Your task to perform on an android device: turn on sleep mode Image 0: 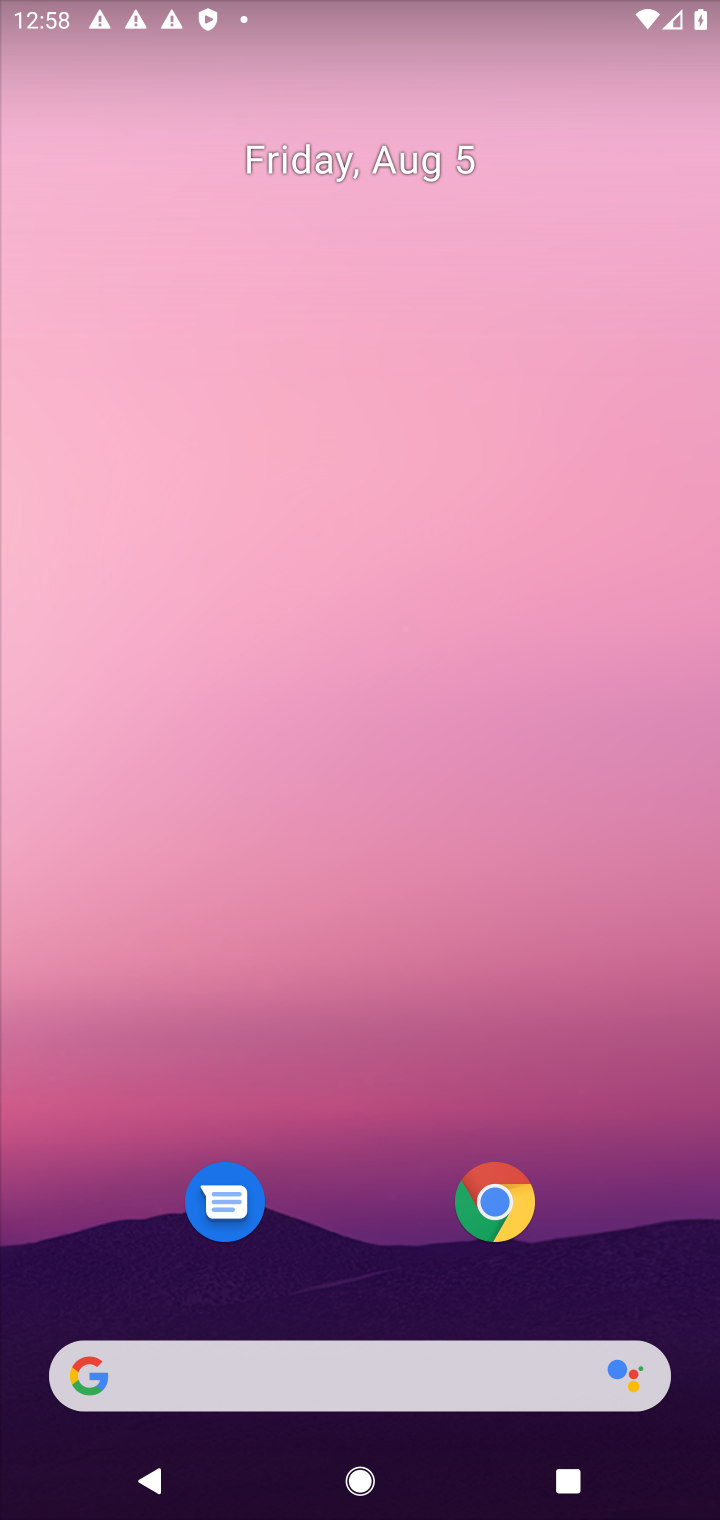
Step 0: drag from (347, 1217) to (444, 236)
Your task to perform on an android device: turn on sleep mode Image 1: 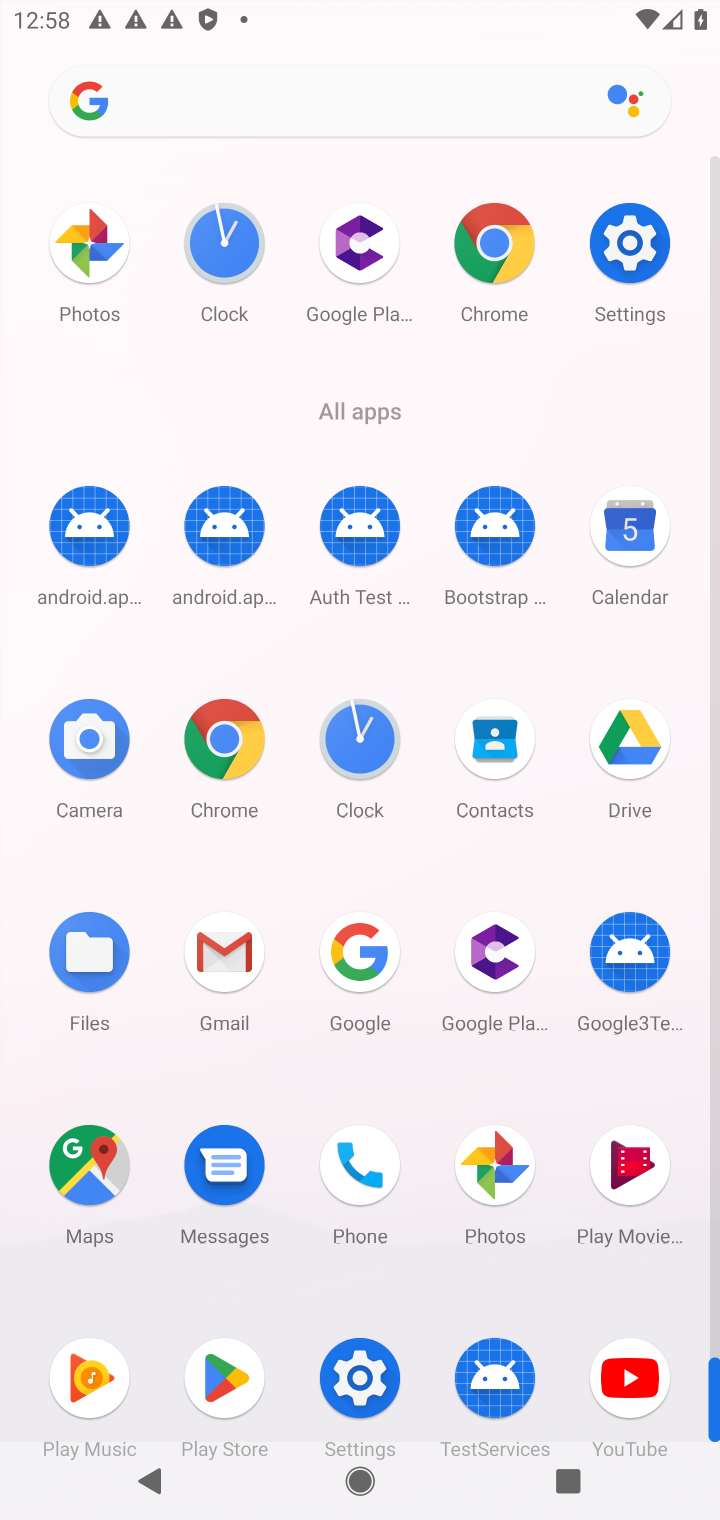
Step 1: click (369, 1384)
Your task to perform on an android device: turn on sleep mode Image 2: 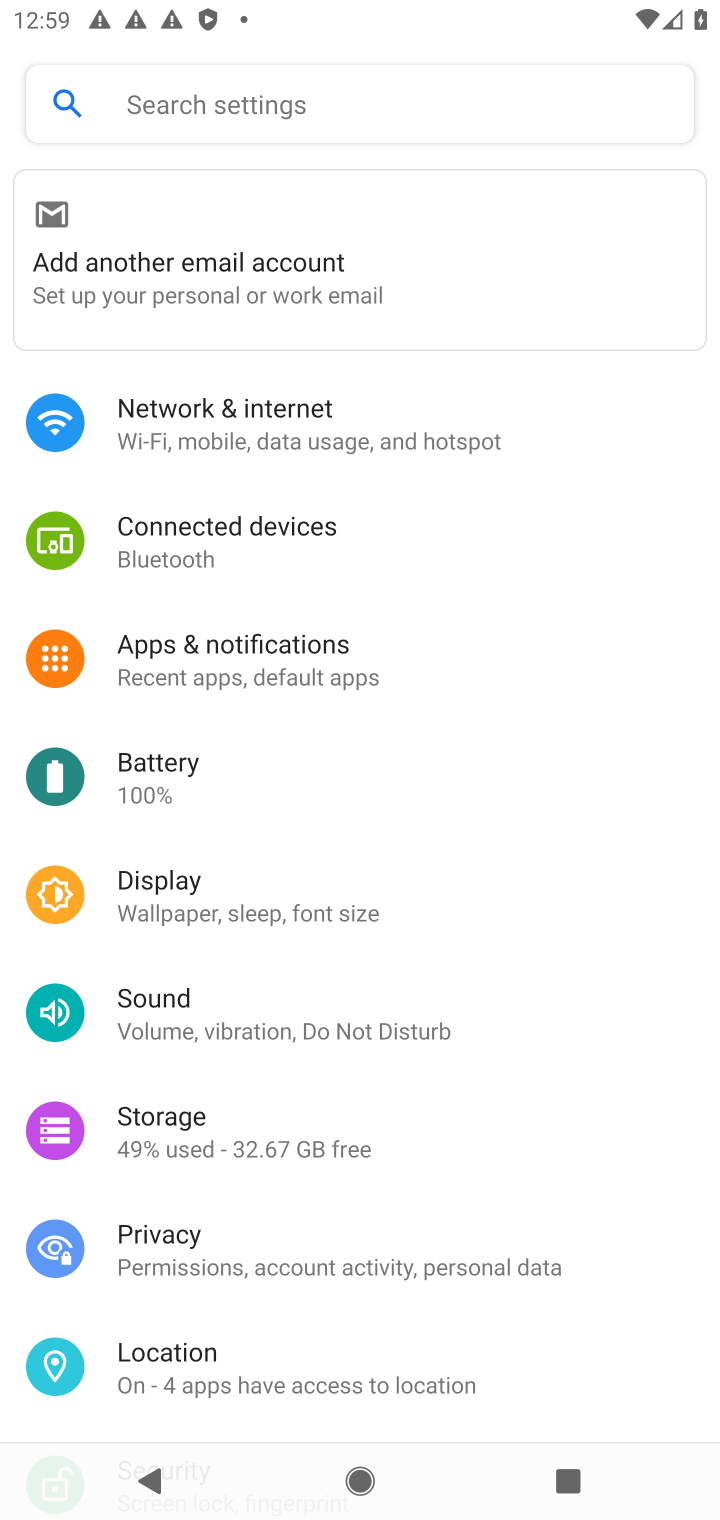
Step 2: click (249, 918)
Your task to perform on an android device: turn on sleep mode Image 3: 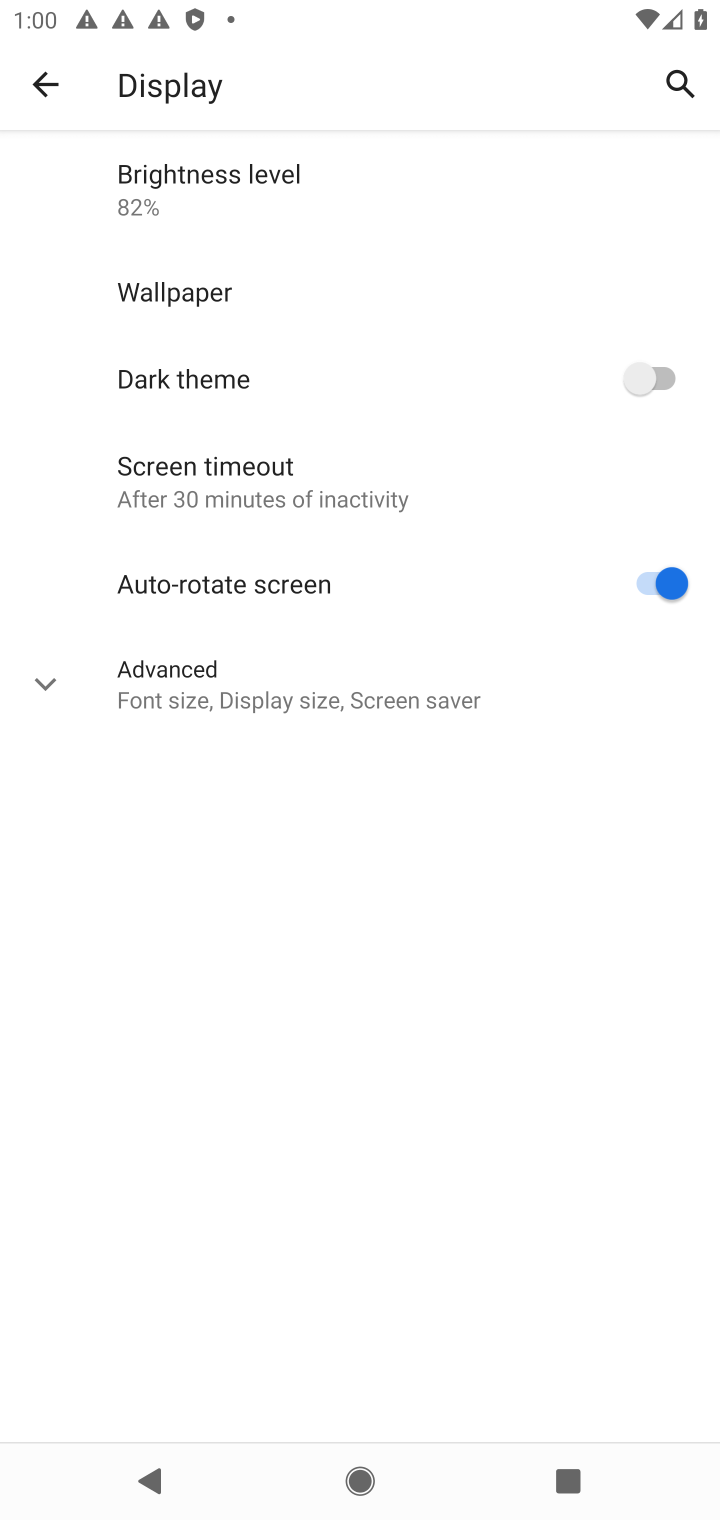
Step 3: click (226, 468)
Your task to perform on an android device: turn on sleep mode Image 4: 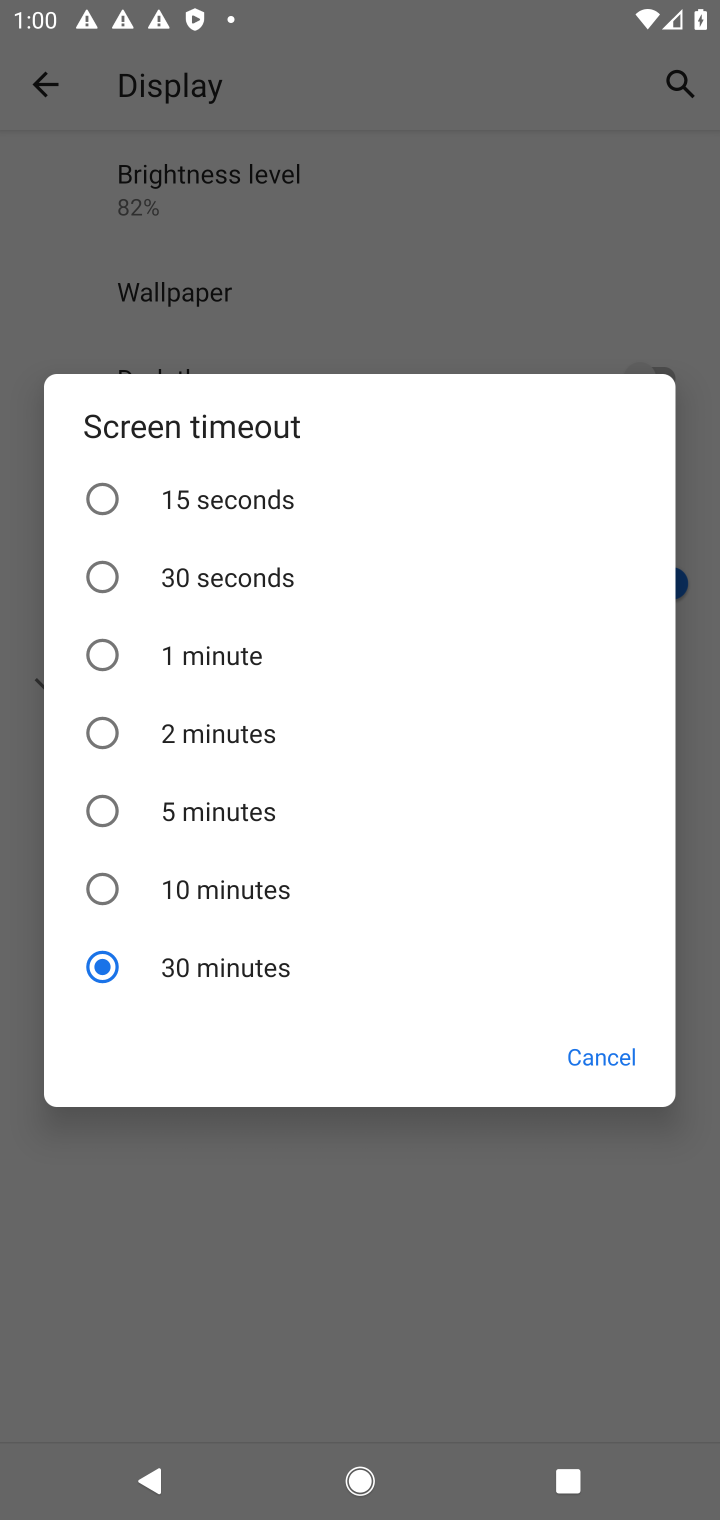
Step 4: task complete